Your task to perform on an android device: Do I have any events this weekend? Image 0: 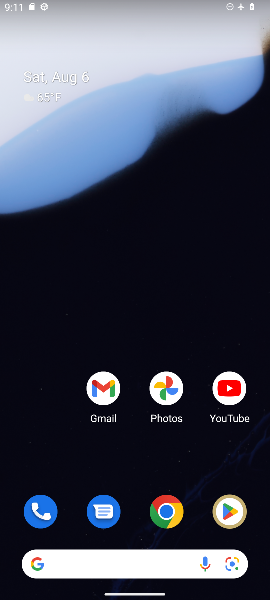
Step 0: drag from (199, 455) to (196, 54)
Your task to perform on an android device: Do I have any events this weekend? Image 1: 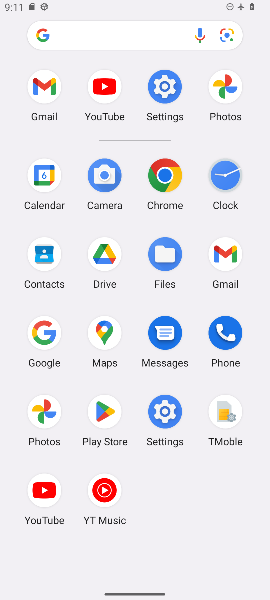
Step 1: click (58, 184)
Your task to perform on an android device: Do I have any events this weekend? Image 2: 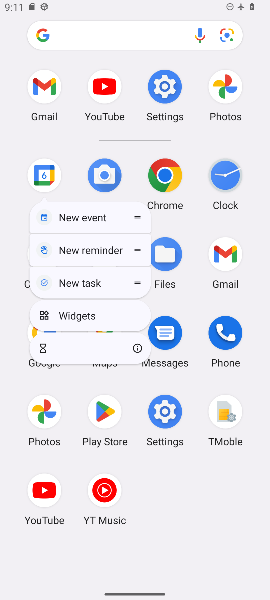
Step 2: click (44, 178)
Your task to perform on an android device: Do I have any events this weekend? Image 3: 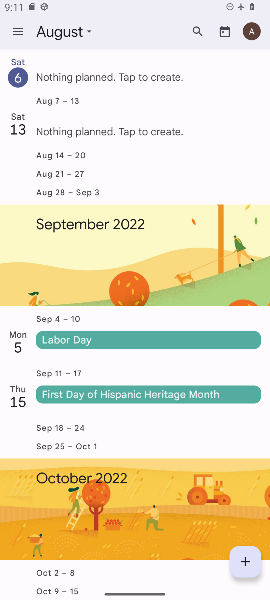
Step 3: click (94, 34)
Your task to perform on an android device: Do I have any events this weekend? Image 4: 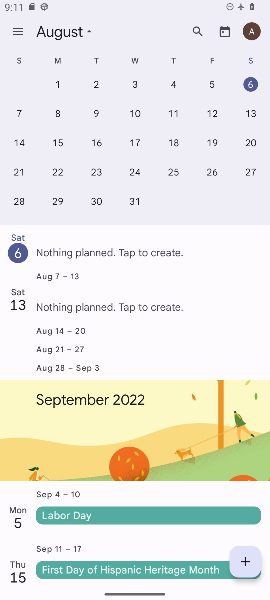
Step 4: click (254, 114)
Your task to perform on an android device: Do I have any events this weekend? Image 5: 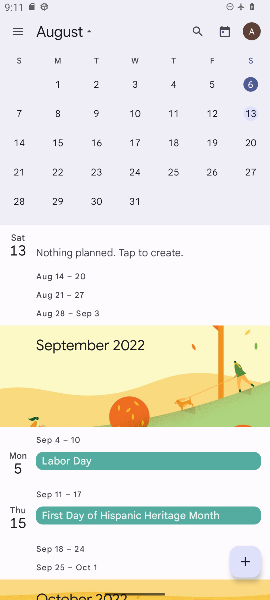
Step 5: task complete